Your task to perform on an android device: Show me popular videos on Youtube Image 0: 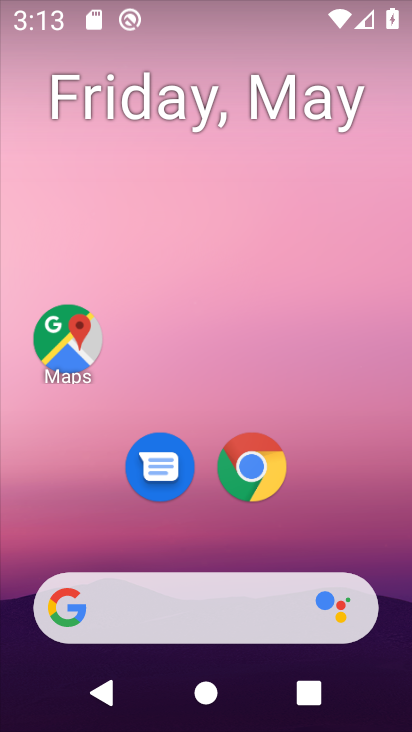
Step 0: drag from (310, 404) to (241, 76)
Your task to perform on an android device: Show me popular videos on Youtube Image 1: 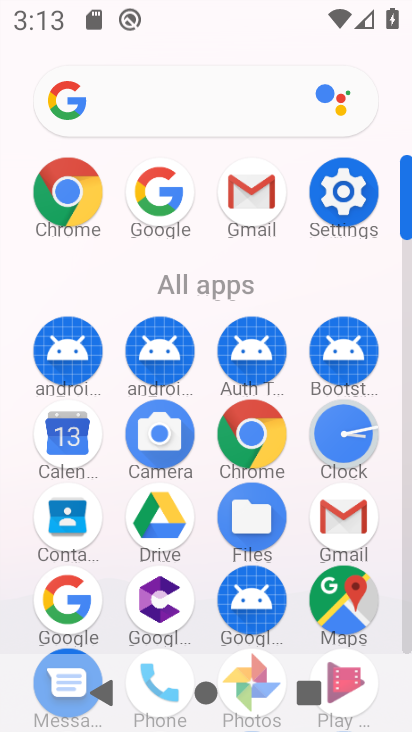
Step 1: drag from (197, 569) to (191, 120)
Your task to perform on an android device: Show me popular videos on Youtube Image 2: 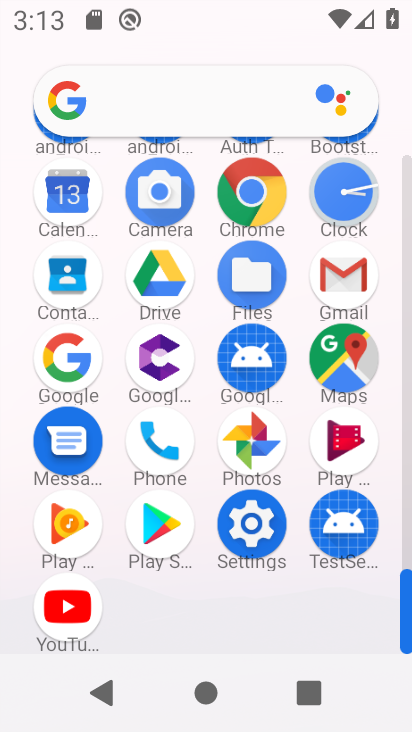
Step 2: click (72, 610)
Your task to perform on an android device: Show me popular videos on Youtube Image 3: 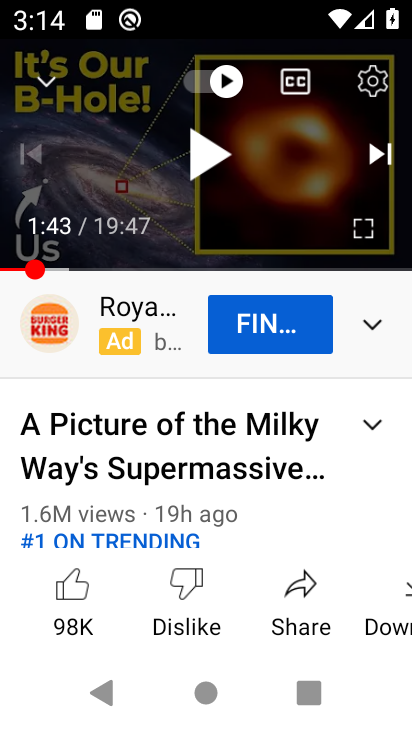
Step 3: press back button
Your task to perform on an android device: Show me popular videos on Youtube Image 4: 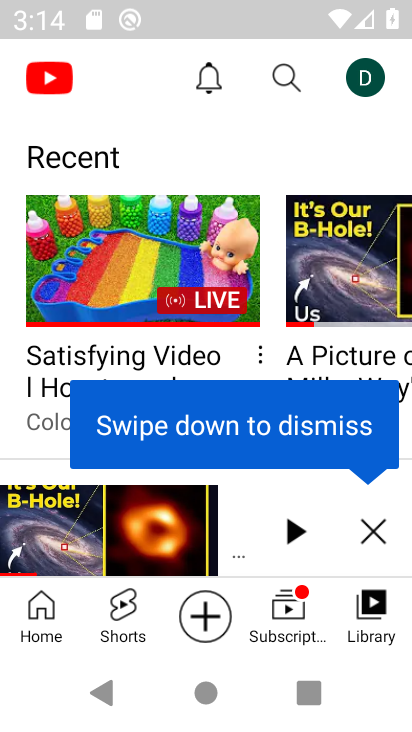
Step 4: click (36, 610)
Your task to perform on an android device: Show me popular videos on Youtube Image 5: 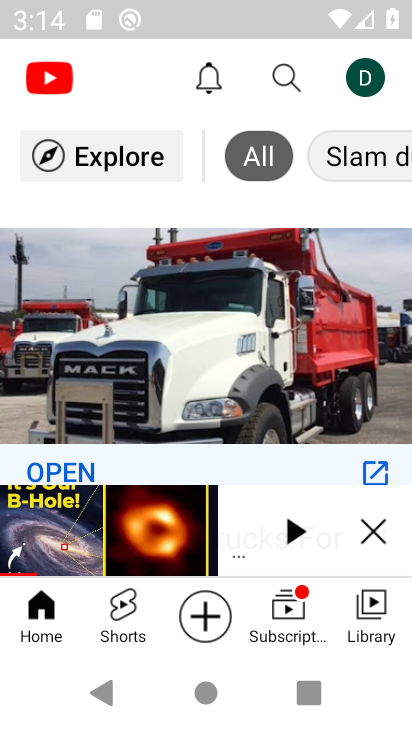
Step 5: click (119, 156)
Your task to perform on an android device: Show me popular videos on Youtube Image 6: 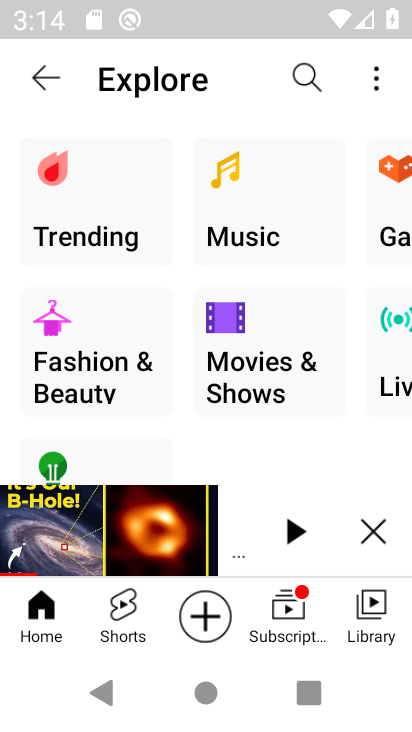
Step 6: click (81, 240)
Your task to perform on an android device: Show me popular videos on Youtube Image 7: 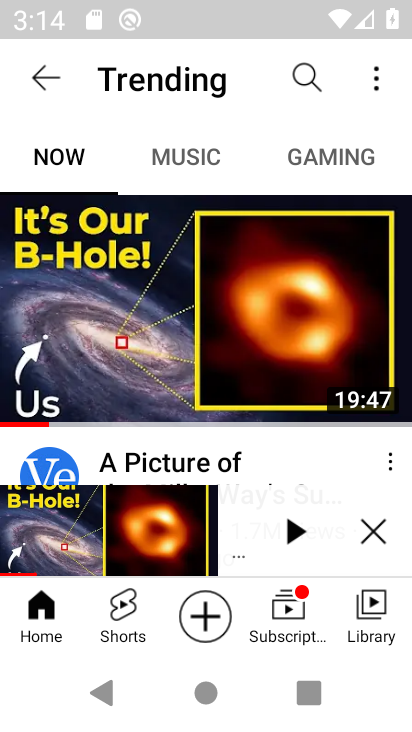
Step 7: task complete